Your task to perform on an android device: What's on my calendar today? Image 0: 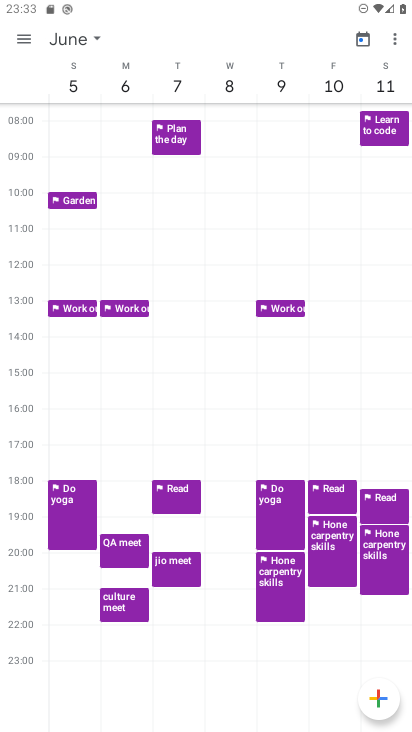
Step 0: click (95, 35)
Your task to perform on an android device: What's on my calendar today? Image 1: 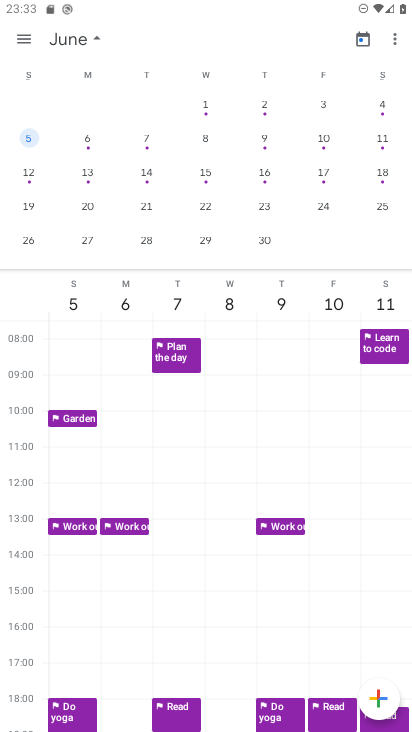
Step 1: click (365, 38)
Your task to perform on an android device: What's on my calendar today? Image 2: 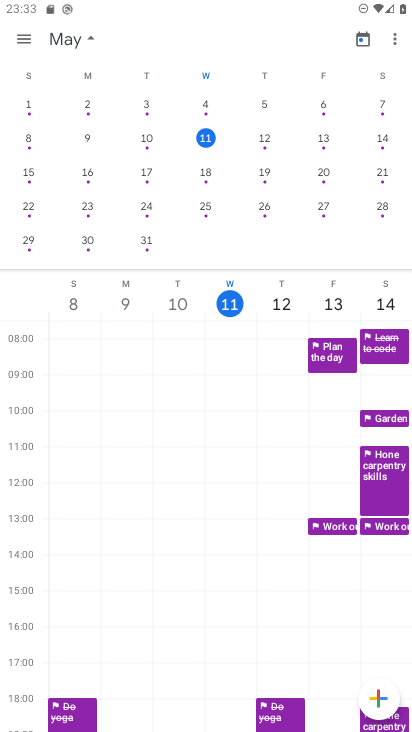
Step 2: click (19, 39)
Your task to perform on an android device: What's on my calendar today? Image 3: 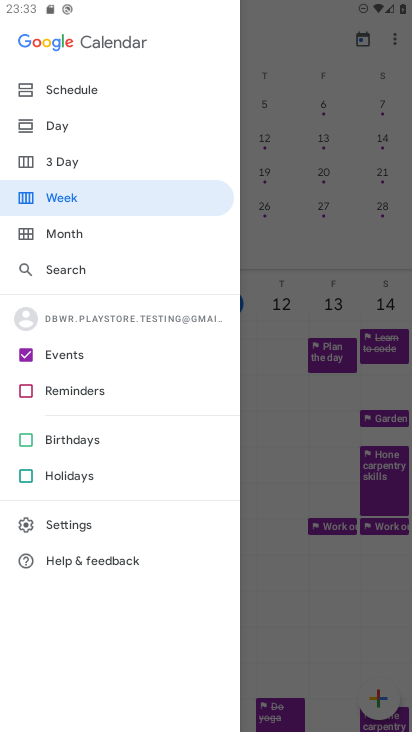
Step 3: click (40, 83)
Your task to perform on an android device: What's on my calendar today? Image 4: 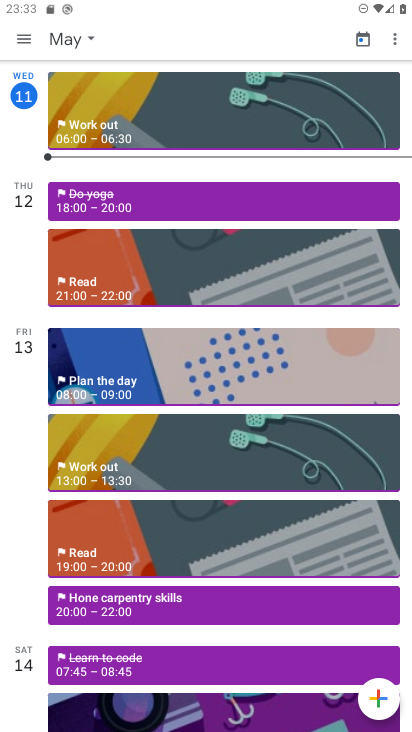
Step 4: drag from (178, 198) to (179, 321)
Your task to perform on an android device: What's on my calendar today? Image 5: 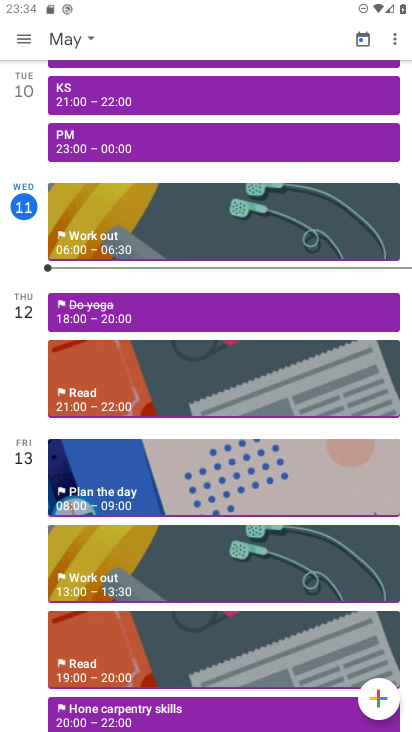
Step 5: click (113, 216)
Your task to perform on an android device: What's on my calendar today? Image 6: 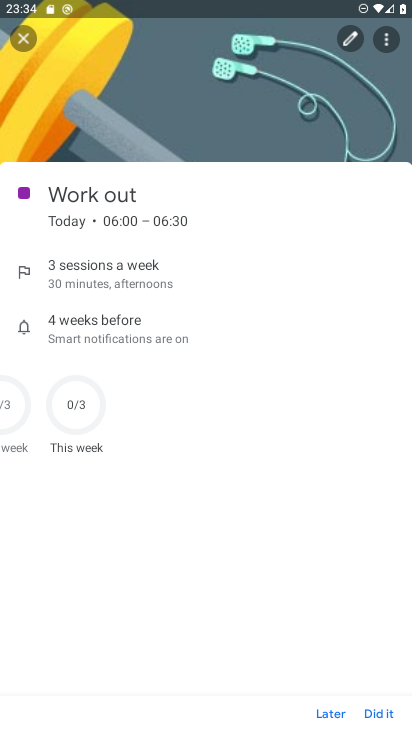
Step 6: task complete